Your task to perform on an android device: change the clock display to analog Image 0: 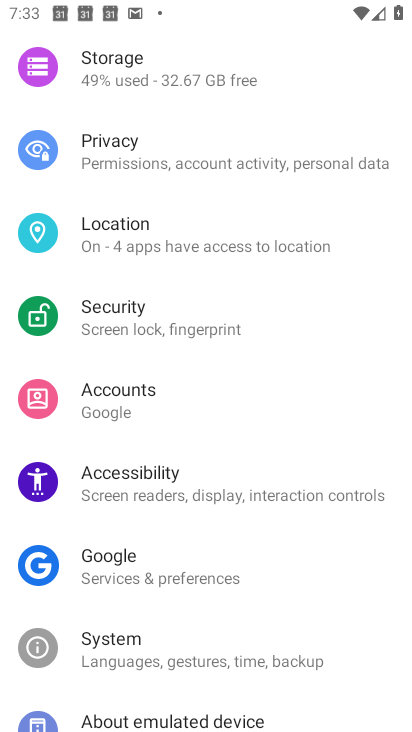
Step 0: click (350, 574)
Your task to perform on an android device: change the clock display to analog Image 1: 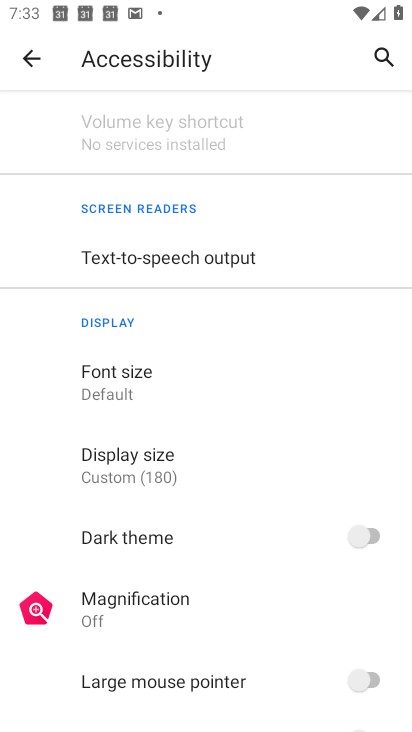
Step 1: press home button
Your task to perform on an android device: change the clock display to analog Image 2: 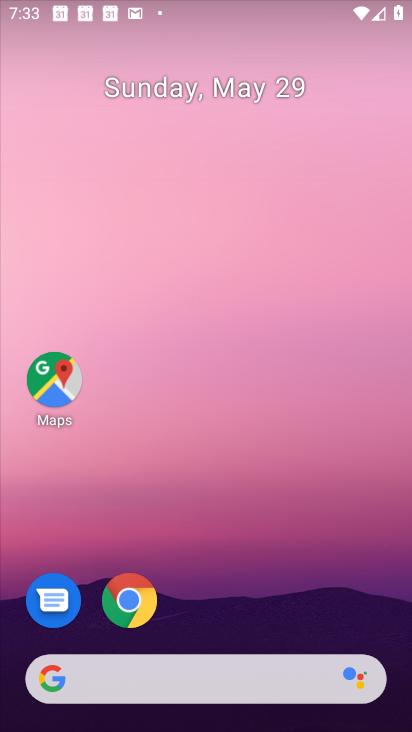
Step 2: drag from (356, 567) to (360, 171)
Your task to perform on an android device: change the clock display to analog Image 3: 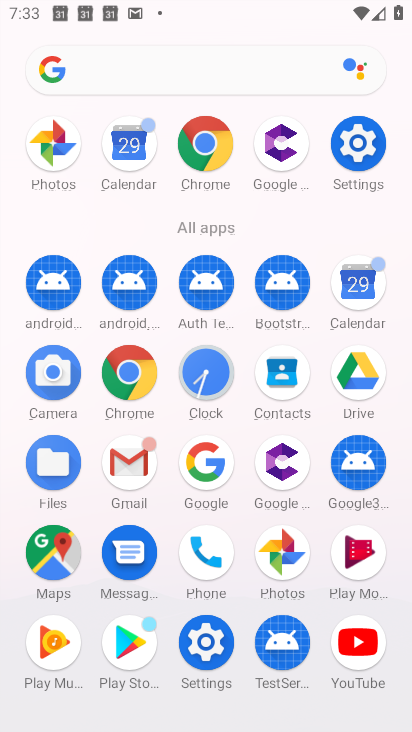
Step 3: click (211, 395)
Your task to perform on an android device: change the clock display to analog Image 4: 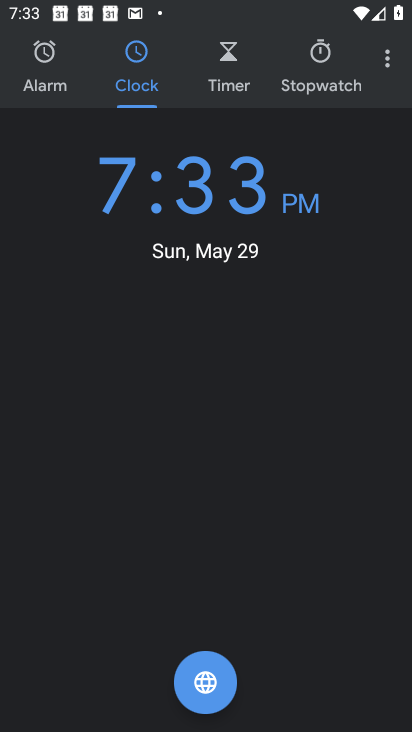
Step 4: click (378, 73)
Your task to perform on an android device: change the clock display to analog Image 5: 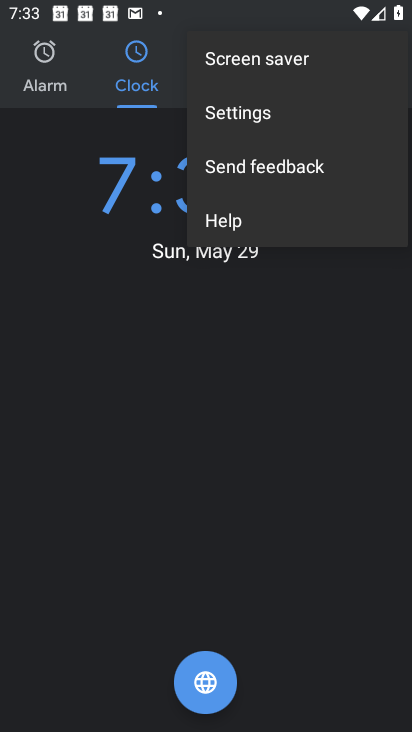
Step 5: click (286, 116)
Your task to perform on an android device: change the clock display to analog Image 6: 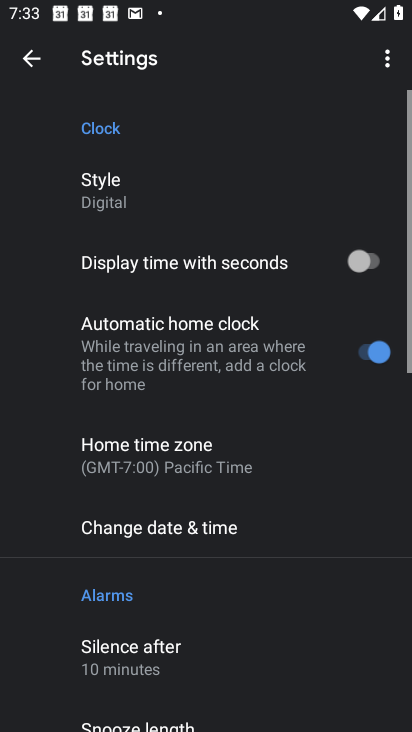
Step 6: click (121, 205)
Your task to perform on an android device: change the clock display to analog Image 7: 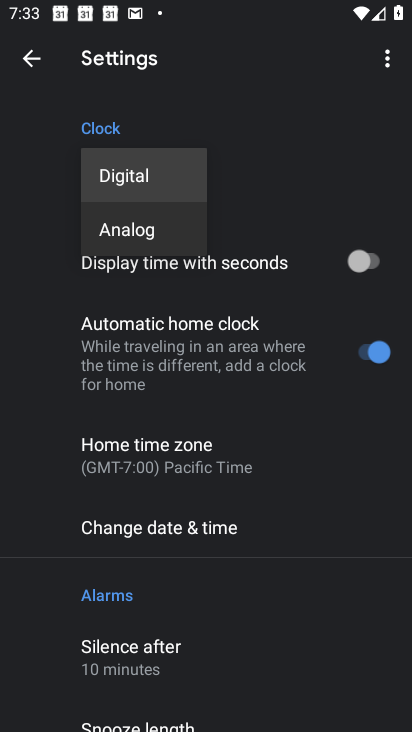
Step 7: click (133, 229)
Your task to perform on an android device: change the clock display to analog Image 8: 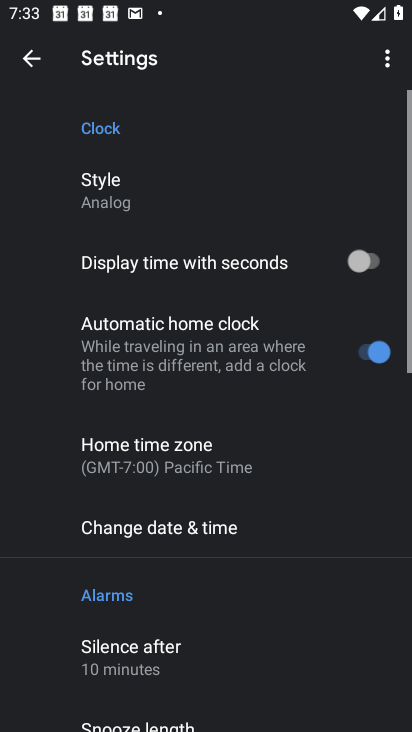
Step 8: task complete